Your task to perform on an android device: Open Chrome and go to settings Image 0: 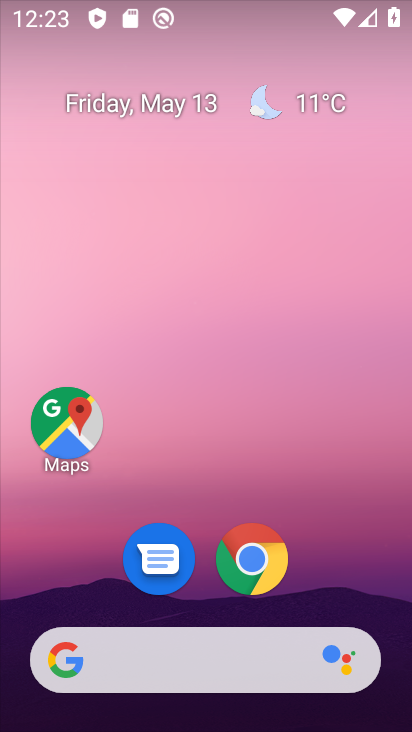
Step 0: click (247, 558)
Your task to perform on an android device: Open Chrome and go to settings Image 1: 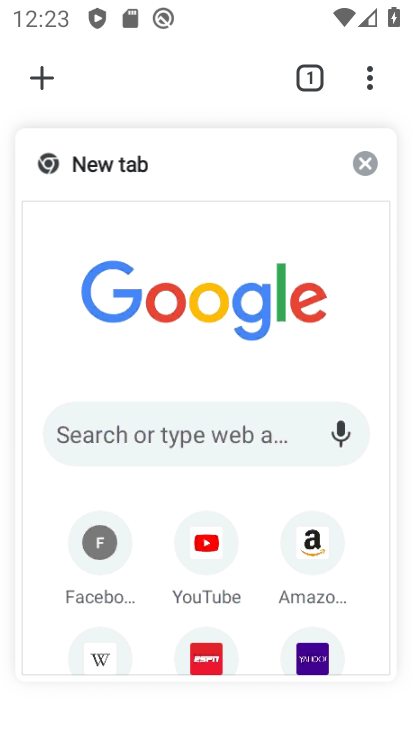
Step 1: press back button
Your task to perform on an android device: Open Chrome and go to settings Image 2: 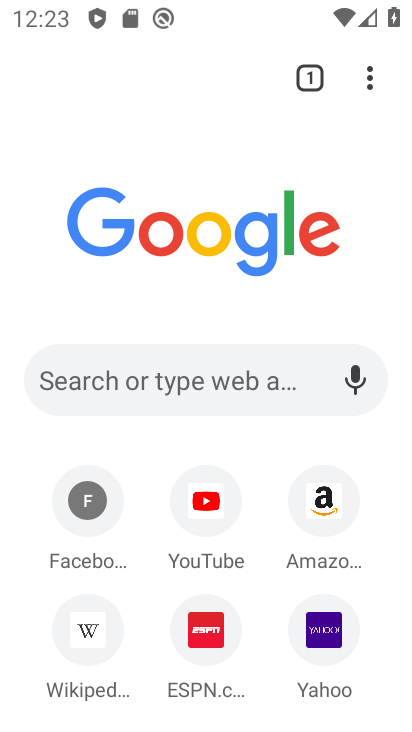
Step 2: click (365, 77)
Your task to perform on an android device: Open Chrome and go to settings Image 3: 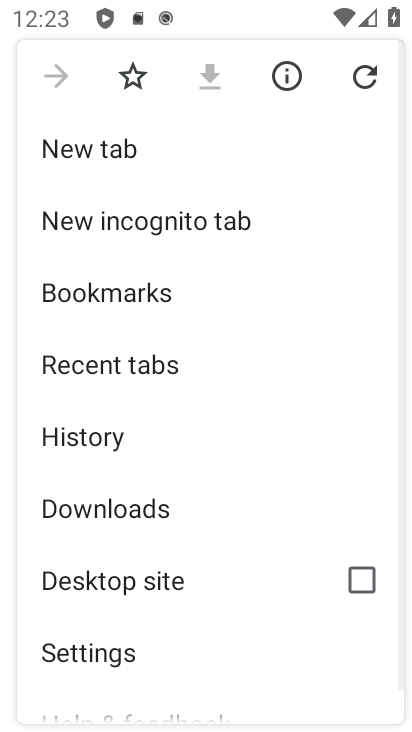
Step 3: click (133, 656)
Your task to perform on an android device: Open Chrome and go to settings Image 4: 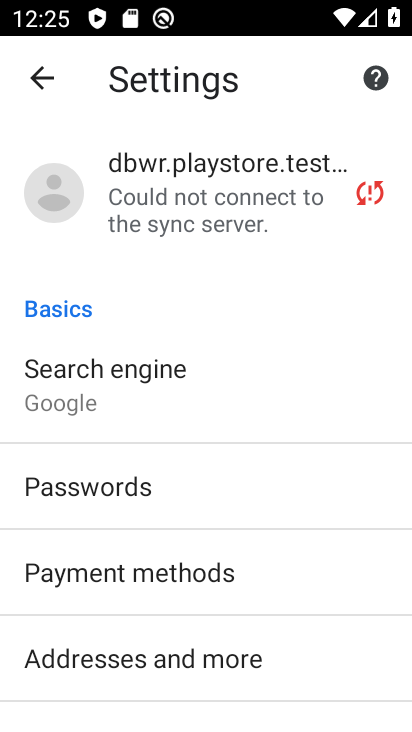
Step 4: task complete